Your task to perform on an android device: install app "The Home Depot" Image 0: 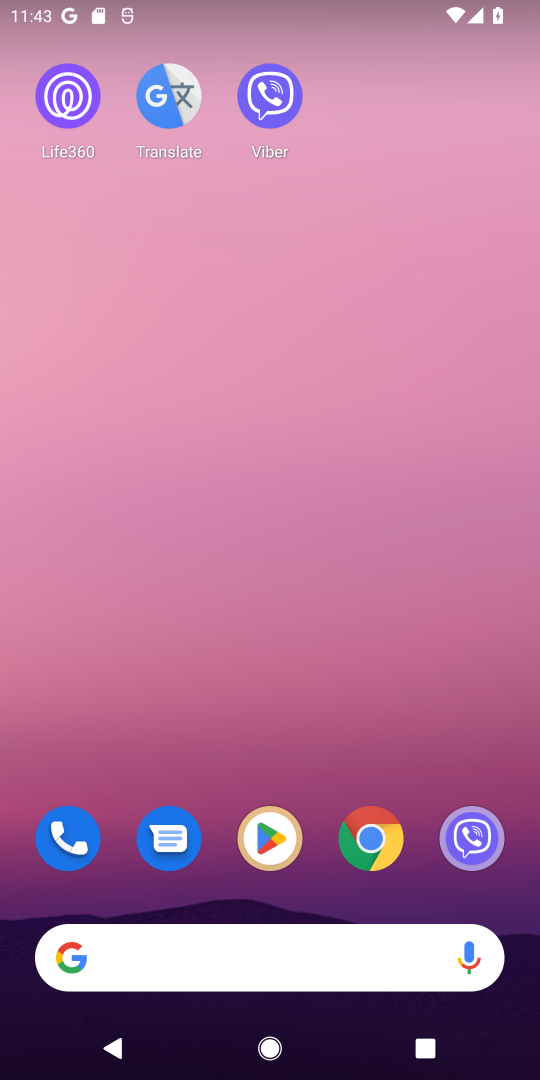
Step 0: click (278, 825)
Your task to perform on an android device: install app "The Home Depot" Image 1: 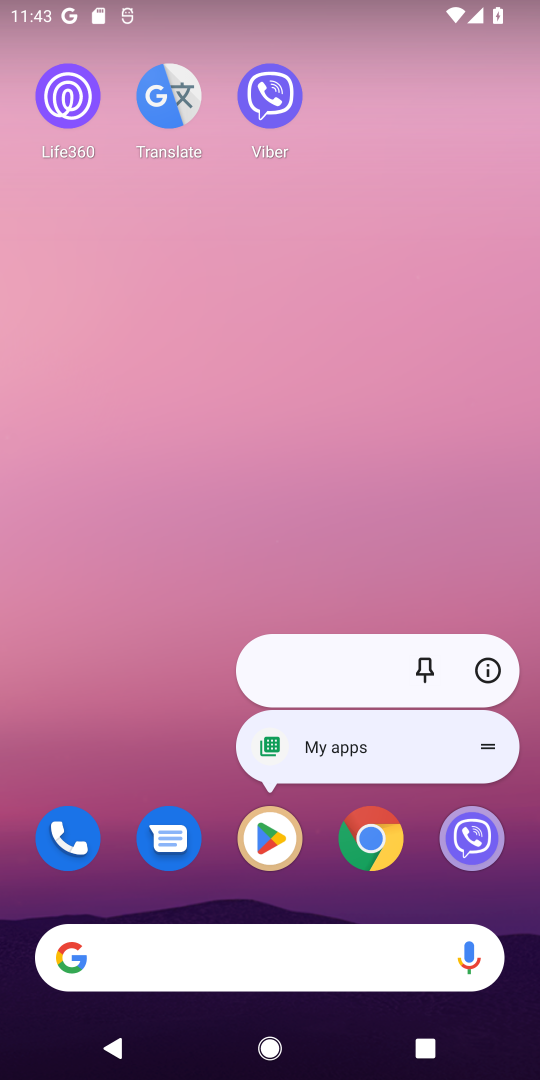
Step 1: click (198, 630)
Your task to perform on an android device: install app "The Home Depot" Image 2: 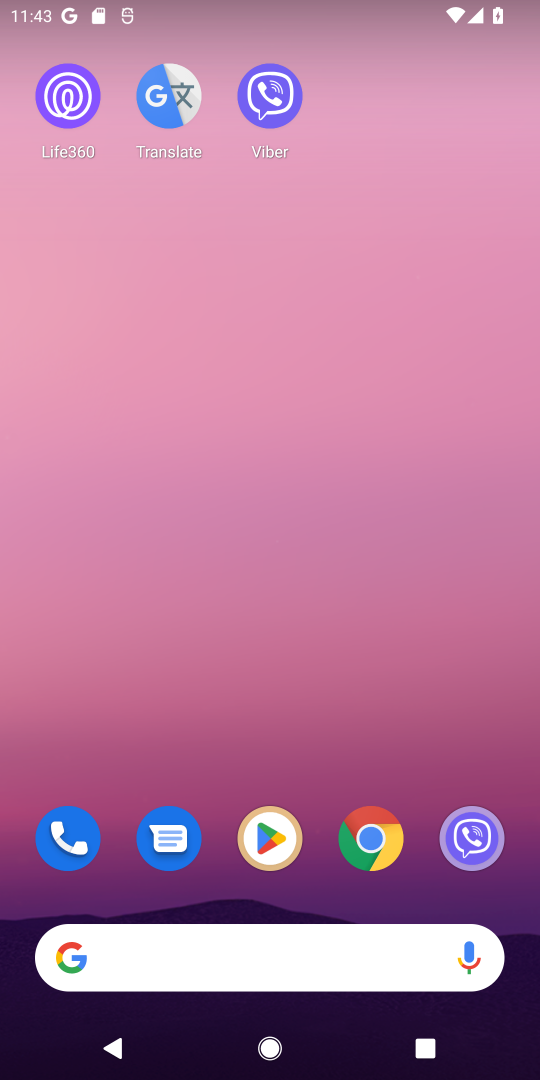
Step 2: click (264, 854)
Your task to perform on an android device: install app "The Home Depot" Image 3: 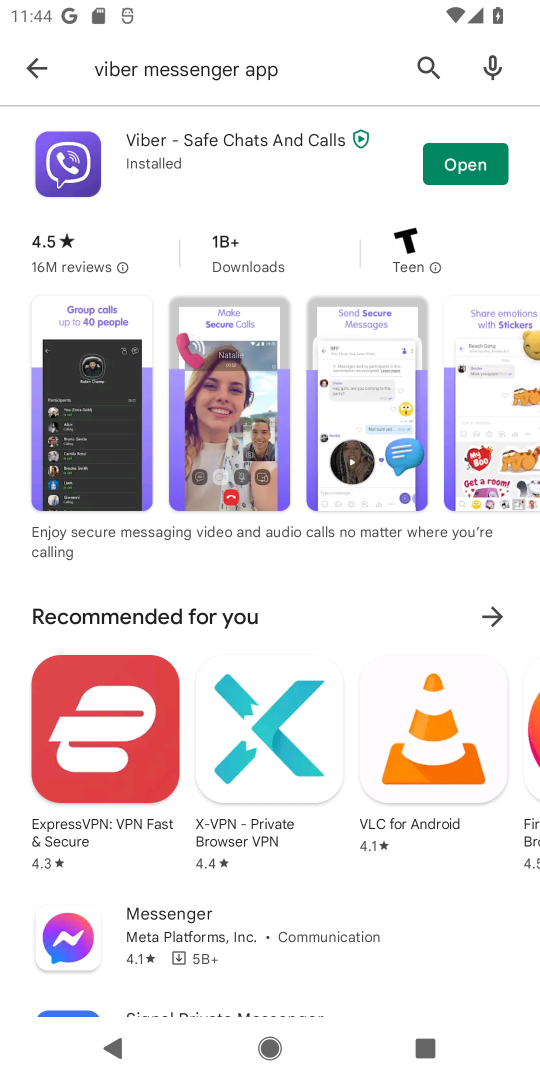
Step 3: click (415, 53)
Your task to perform on an android device: install app "The Home Depot" Image 4: 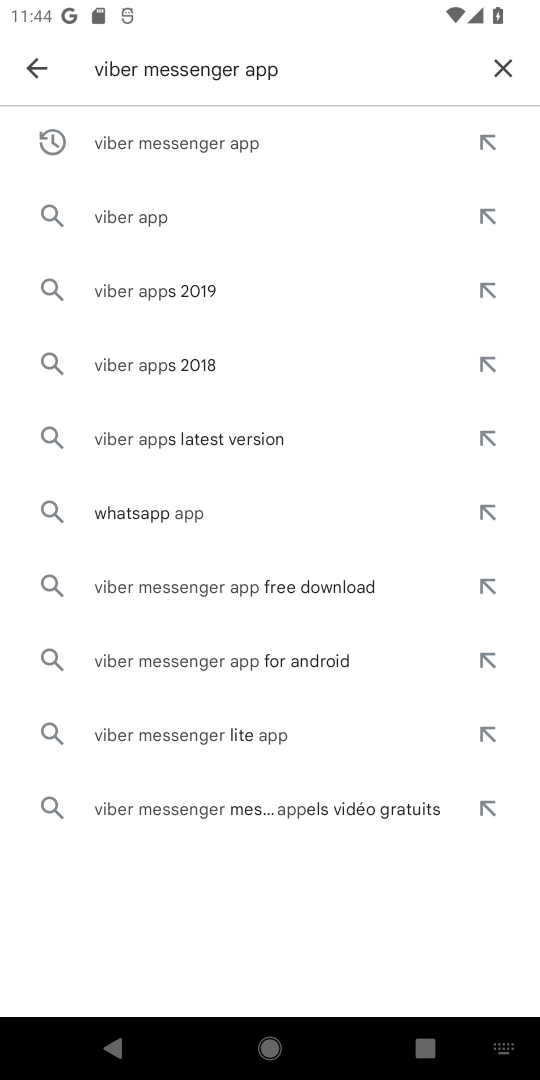
Step 4: click (514, 63)
Your task to perform on an android device: install app "The Home Depot" Image 5: 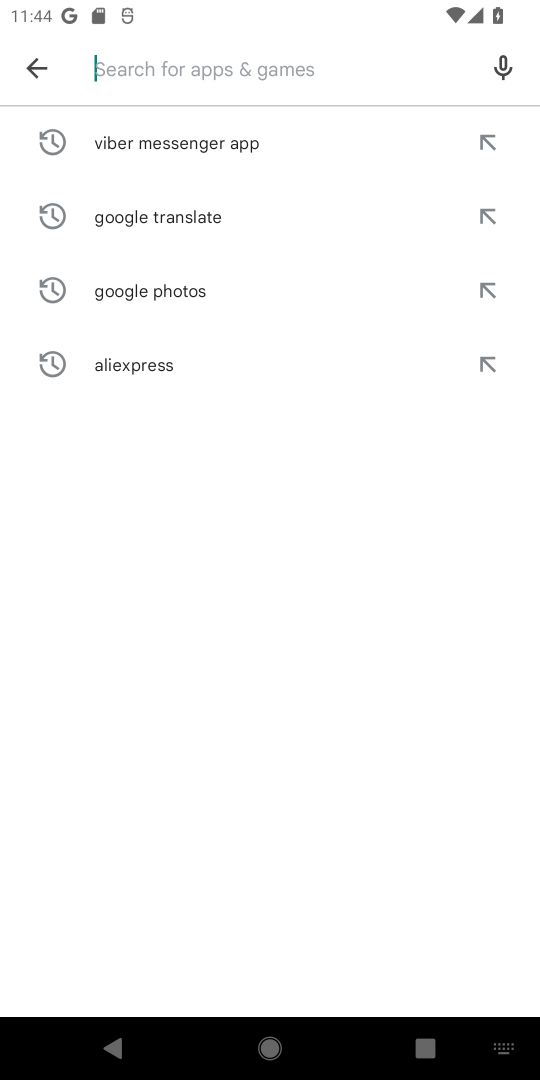
Step 5: type "The Home Depot"
Your task to perform on an android device: install app "The Home Depot" Image 6: 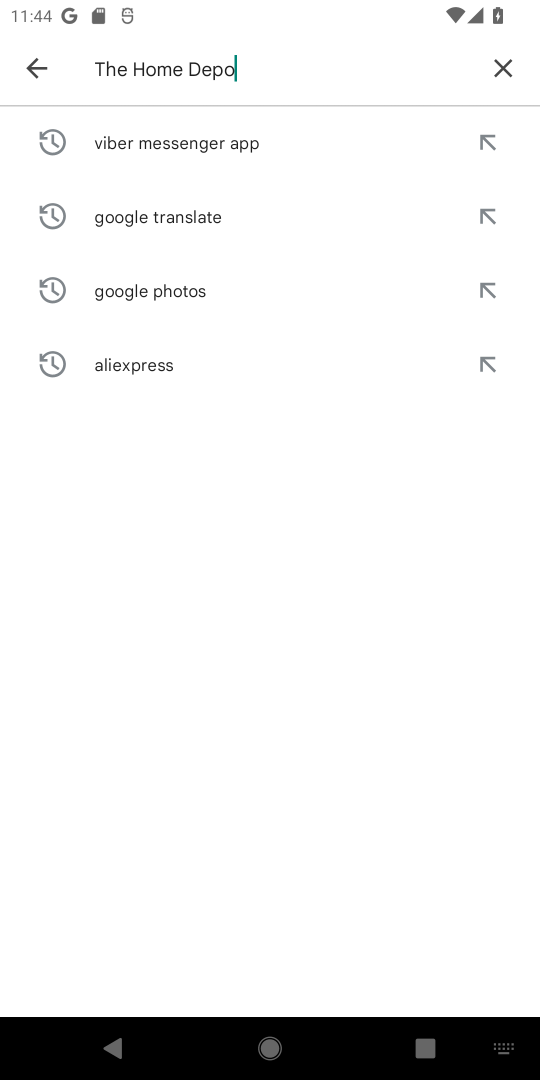
Step 6: type ""
Your task to perform on an android device: install app "The Home Depot" Image 7: 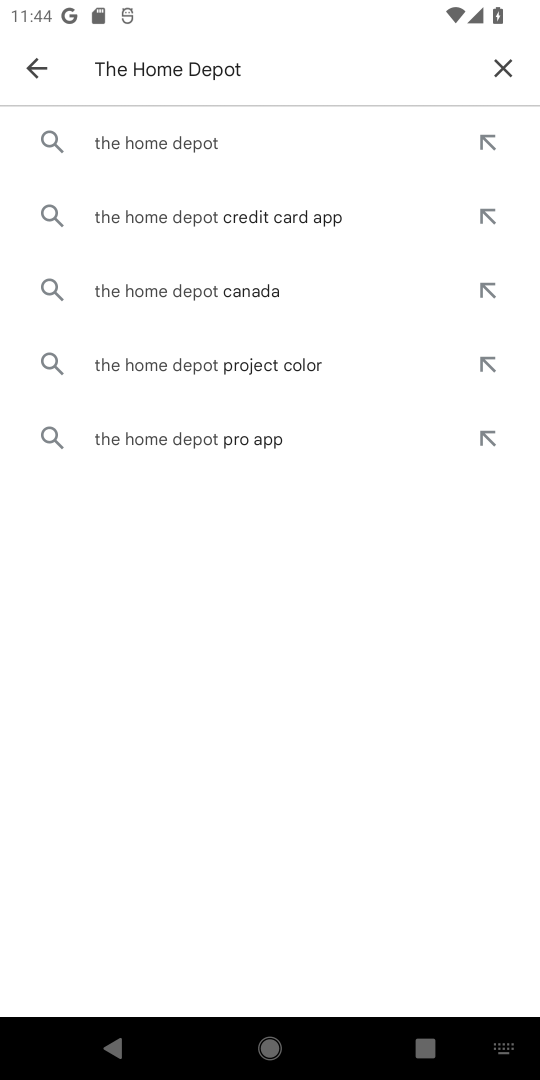
Step 7: click (152, 142)
Your task to perform on an android device: install app "The Home Depot" Image 8: 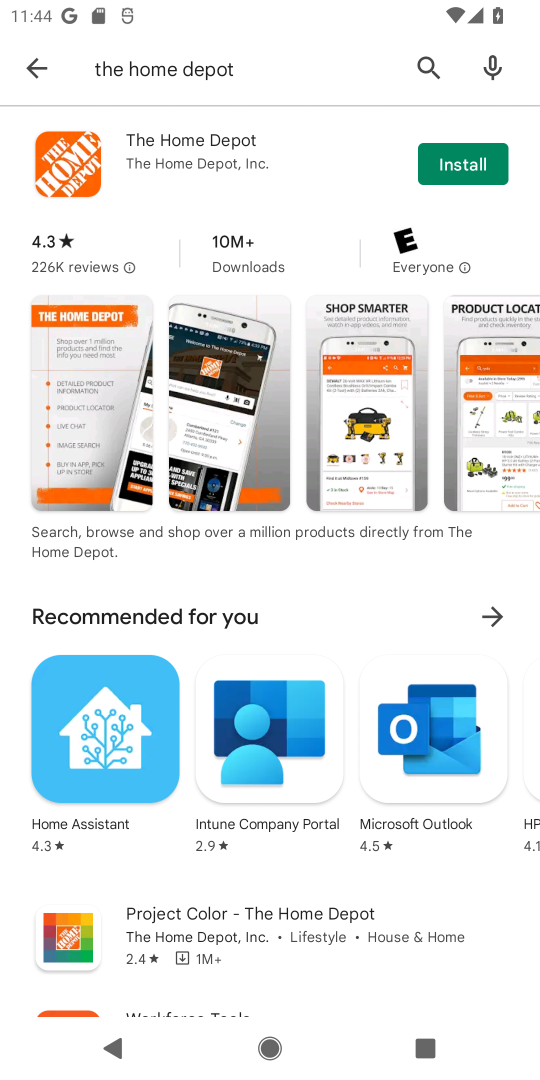
Step 8: click (497, 166)
Your task to perform on an android device: install app "The Home Depot" Image 9: 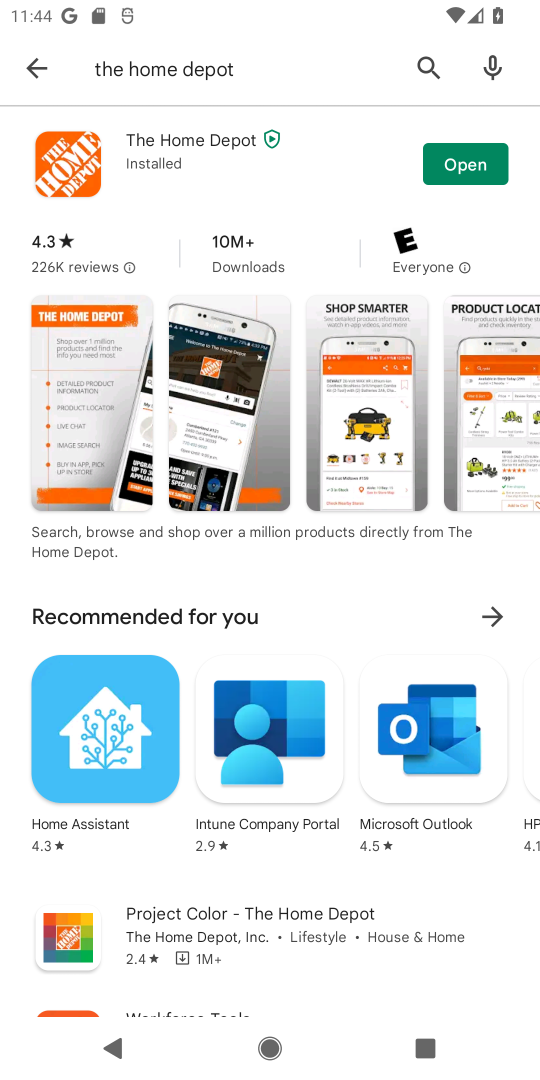
Step 9: task complete